Your task to perform on an android device: Open the stopwatch Image 0: 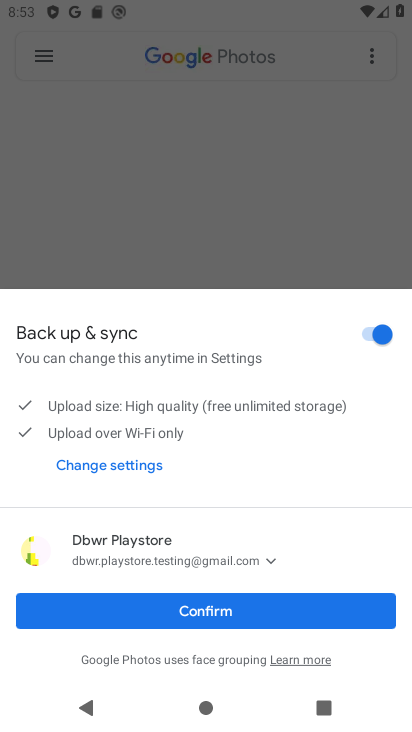
Step 0: press home button
Your task to perform on an android device: Open the stopwatch Image 1: 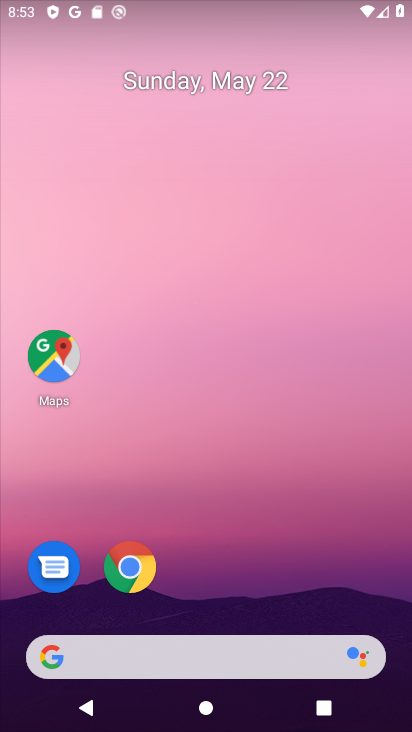
Step 1: drag from (189, 547) to (257, 3)
Your task to perform on an android device: Open the stopwatch Image 2: 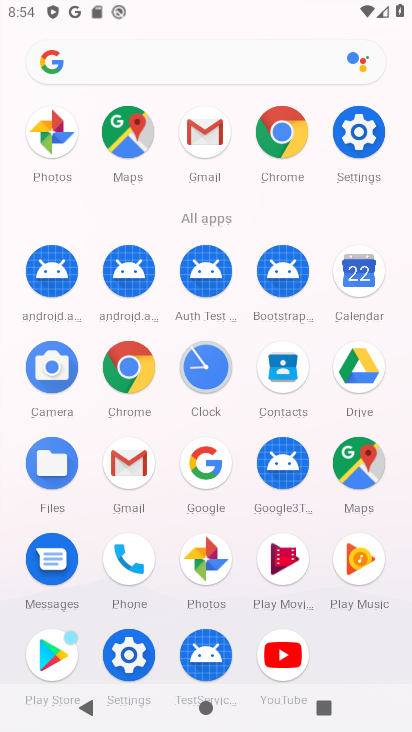
Step 2: click (196, 366)
Your task to perform on an android device: Open the stopwatch Image 3: 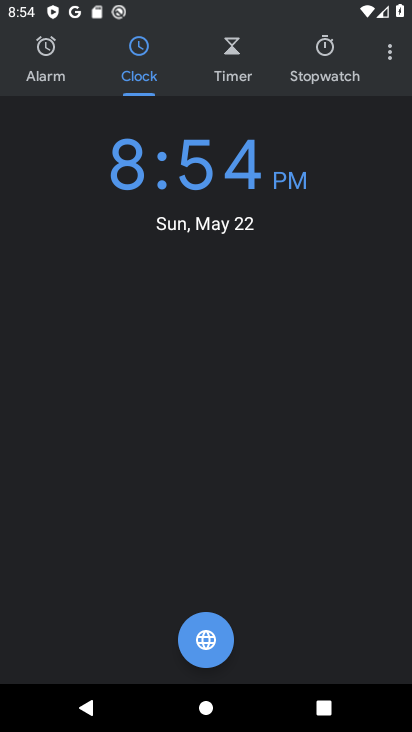
Step 3: click (310, 64)
Your task to perform on an android device: Open the stopwatch Image 4: 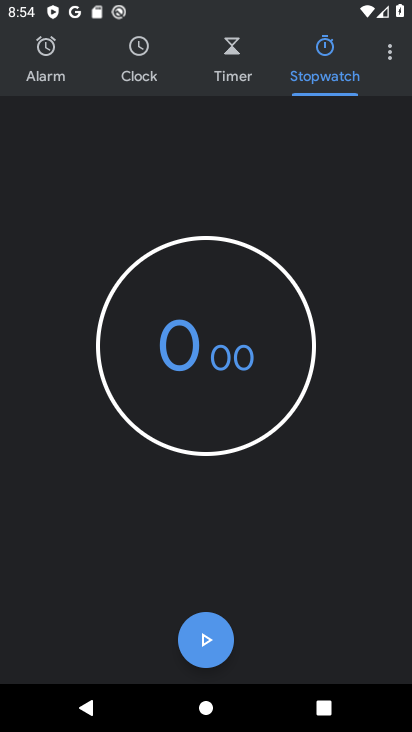
Step 4: click (201, 633)
Your task to perform on an android device: Open the stopwatch Image 5: 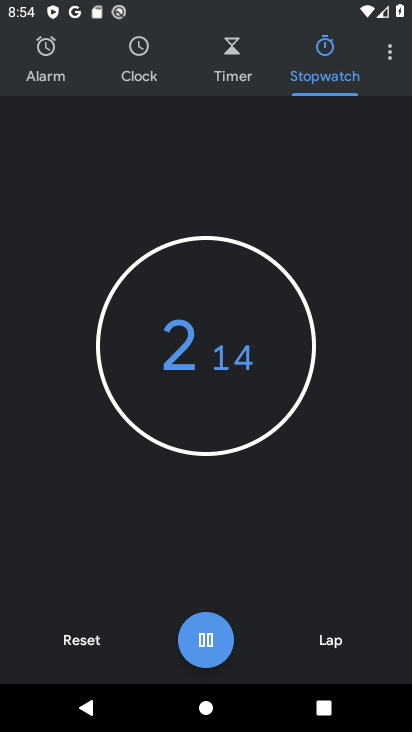
Step 5: task complete